Your task to perform on an android device: turn off wifi Image 0: 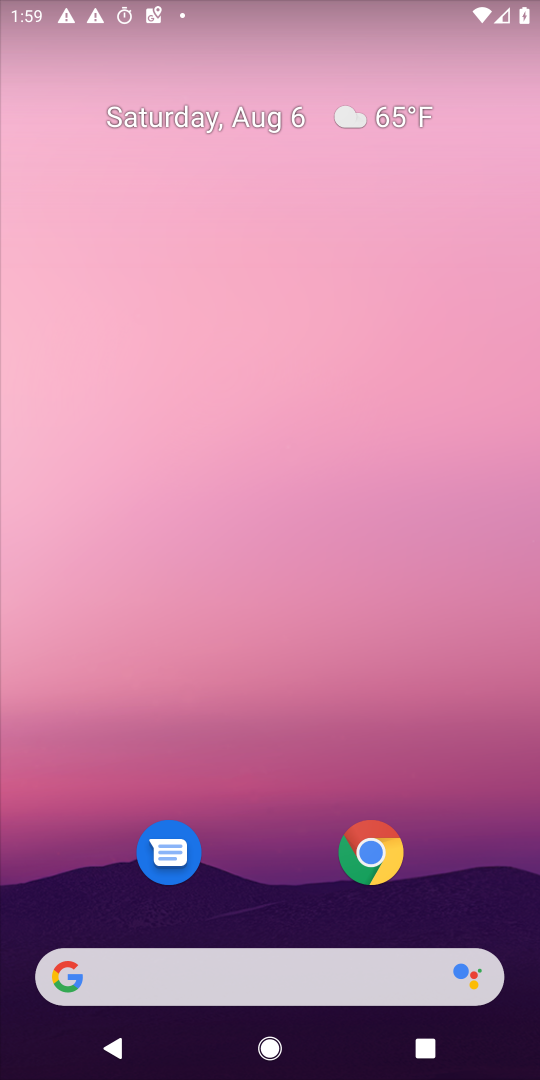
Step 0: drag from (333, 970) to (340, 255)
Your task to perform on an android device: turn off wifi Image 1: 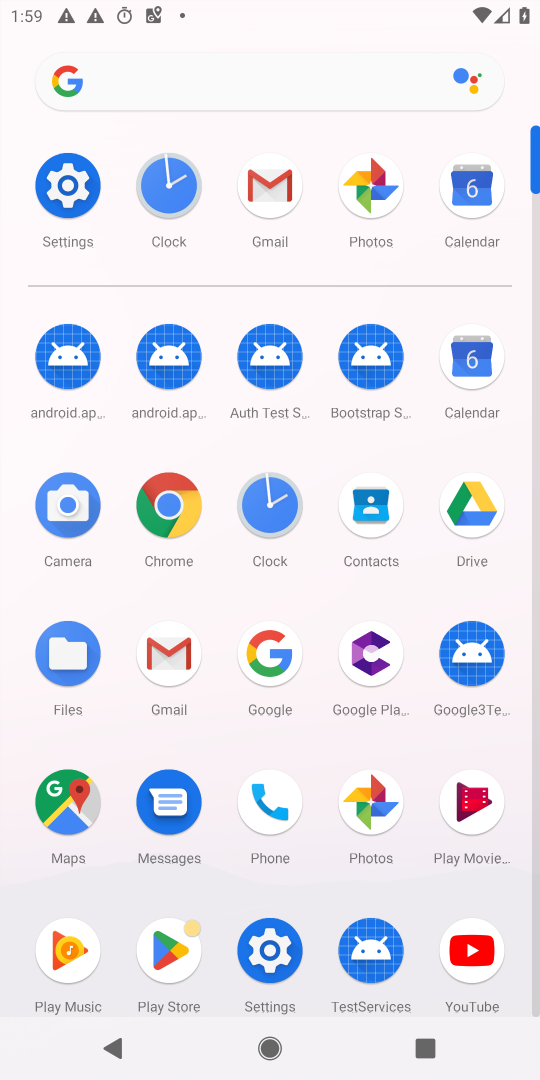
Step 1: click (80, 204)
Your task to perform on an android device: turn off wifi Image 2: 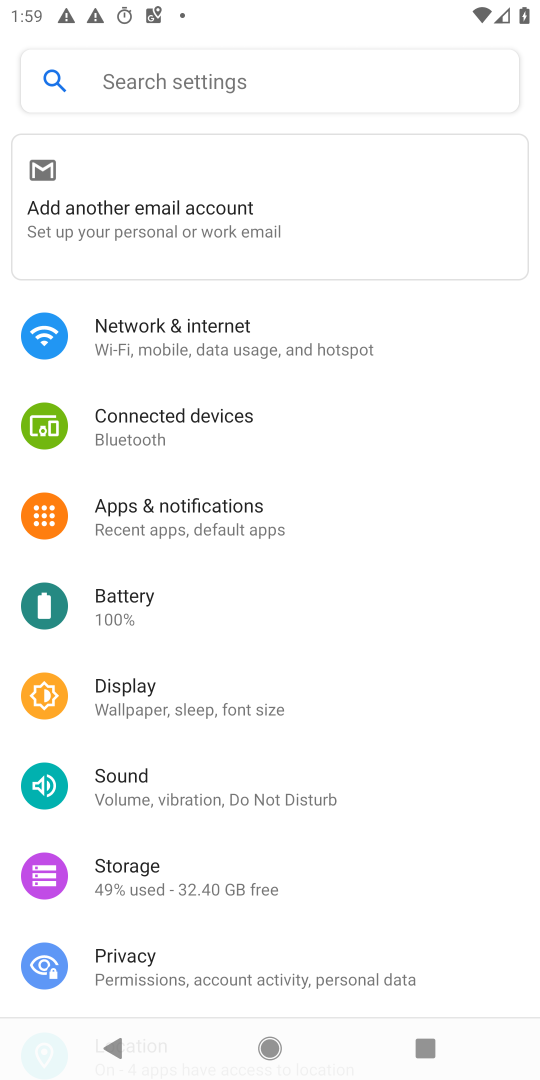
Step 2: click (175, 337)
Your task to perform on an android device: turn off wifi Image 3: 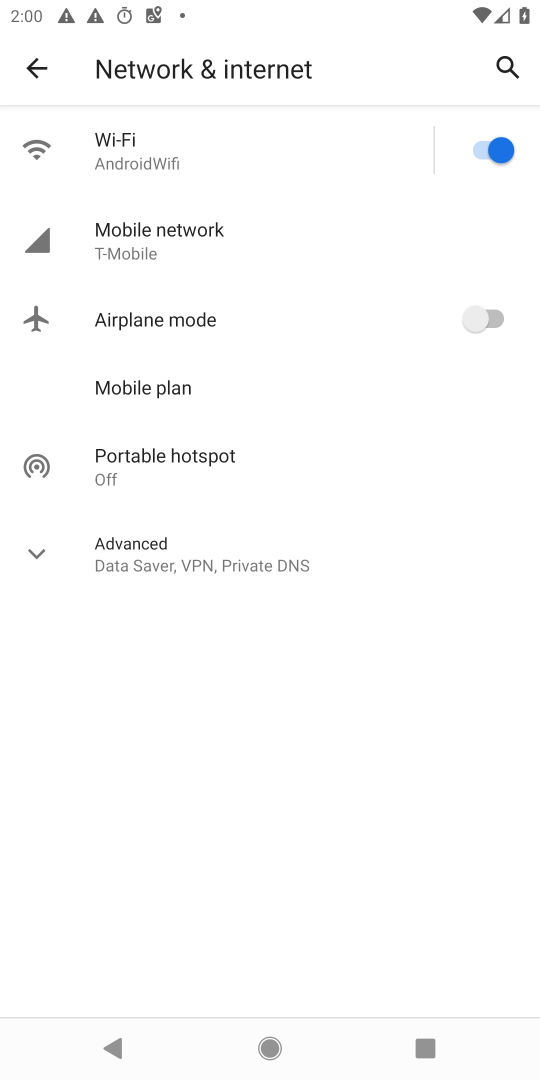
Step 3: click (217, 138)
Your task to perform on an android device: turn off wifi Image 4: 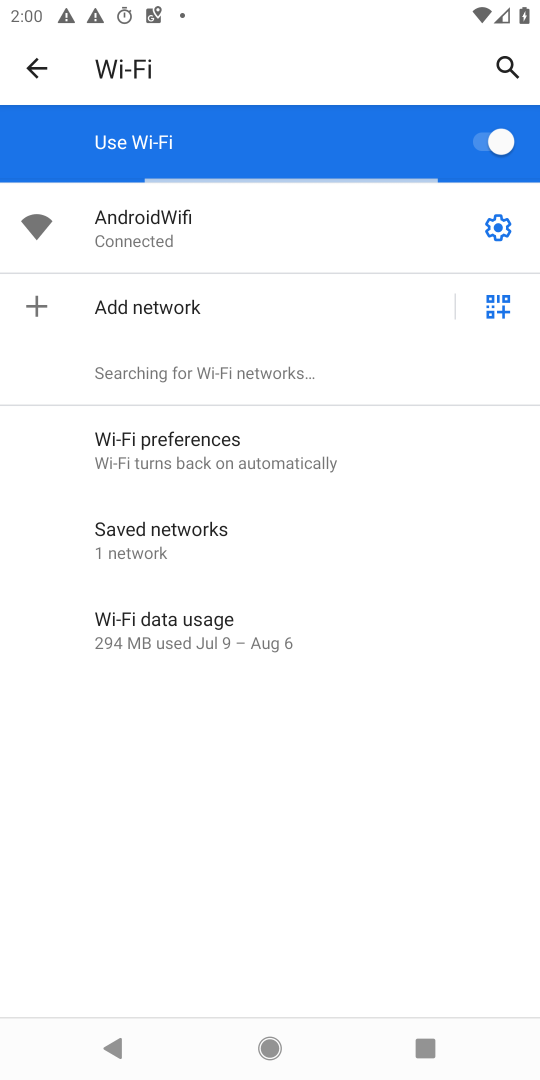
Step 4: click (490, 145)
Your task to perform on an android device: turn off wifi Image 5: 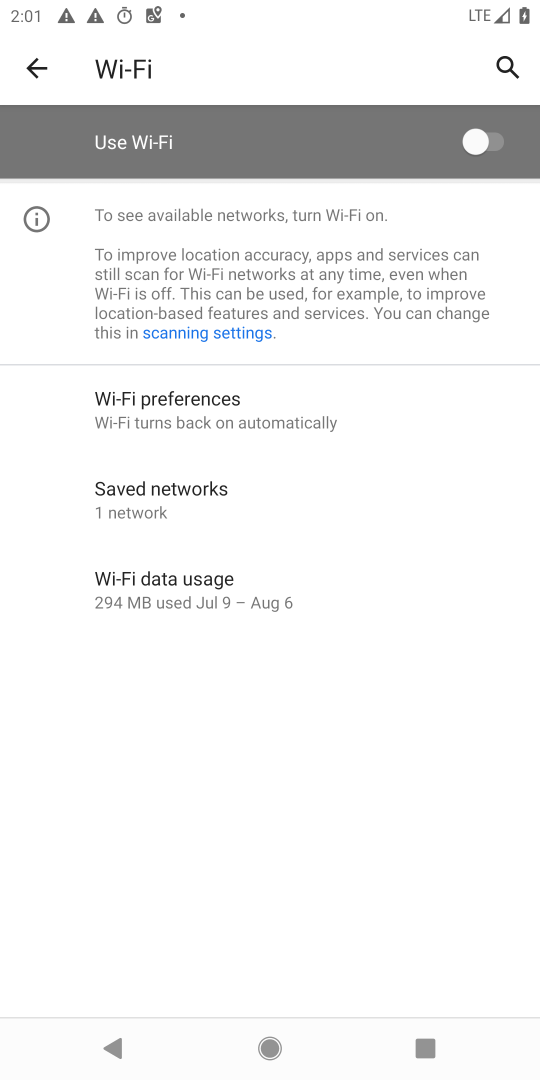
Step 5: task complete